Your task to perform on an android device: set the stopwatch Image 0: 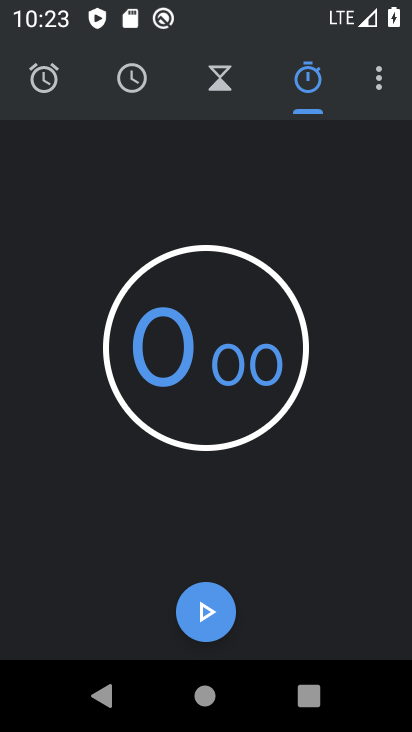
Step 0: click (199, 376)
Your task to perform on an android device: set the stopwatch Image 1: 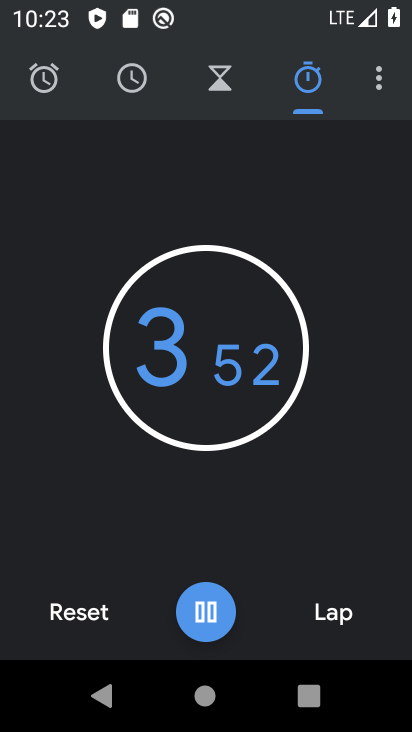
Step 1: type "787"
Your task to perform on an android device: set the stopwatch Image 2: 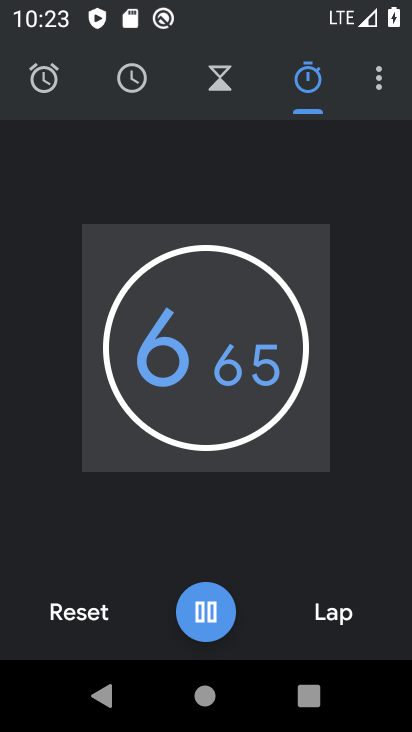
Step 2: task complete